Your task to perform on an android device: Open battery settings Image 0: 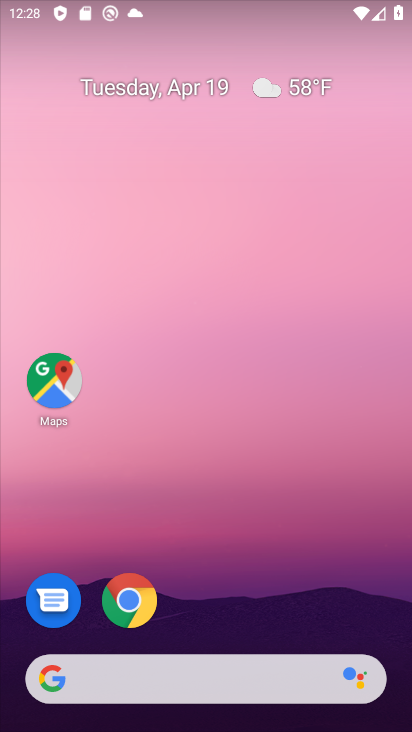
Step 0: drag from (387, 609) to (182, 105)
Your task to perform on an android device: Open battery settings Image 1: 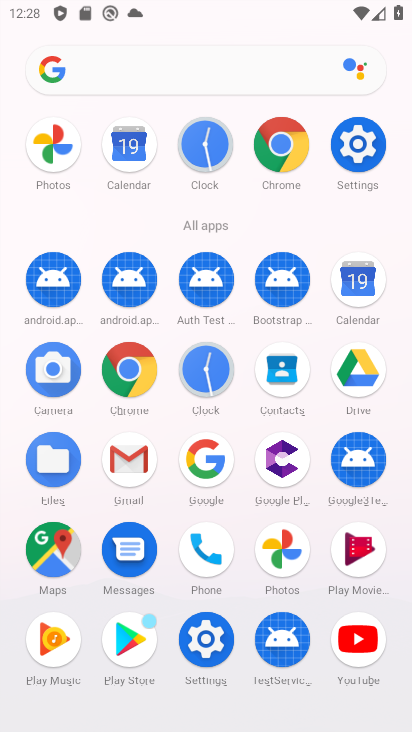
Step 1: click (358, 137)
Your task to perform on an android device: Open battery settings Image 2: 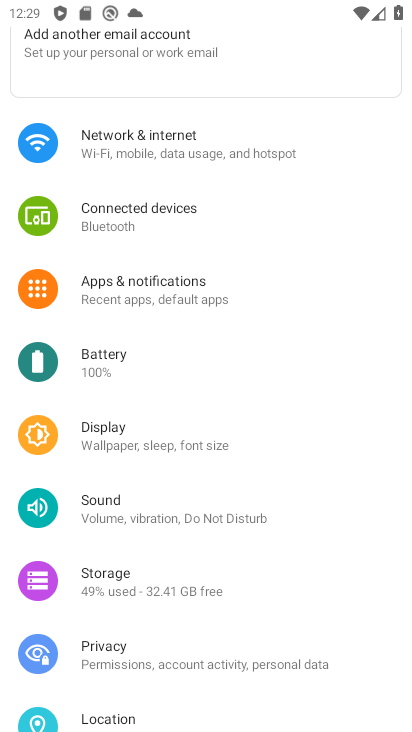
Step 2: click (240, 369)
Your task to perform on an android device: Open battery settings Image 3: 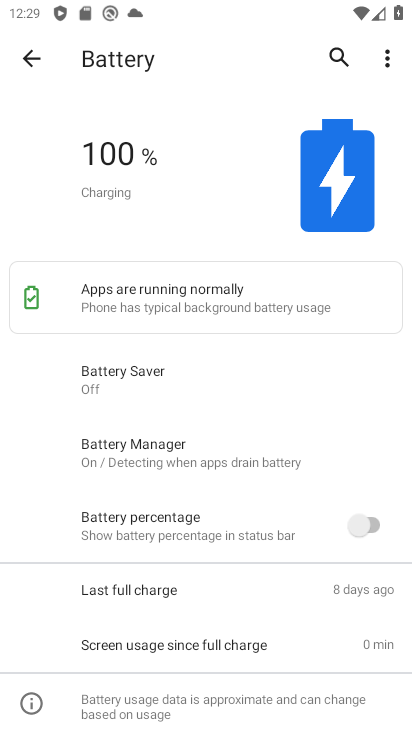
Step 3: task complete